Your task to perform on an android device: manage bookmarks in the chrome app Image 0: 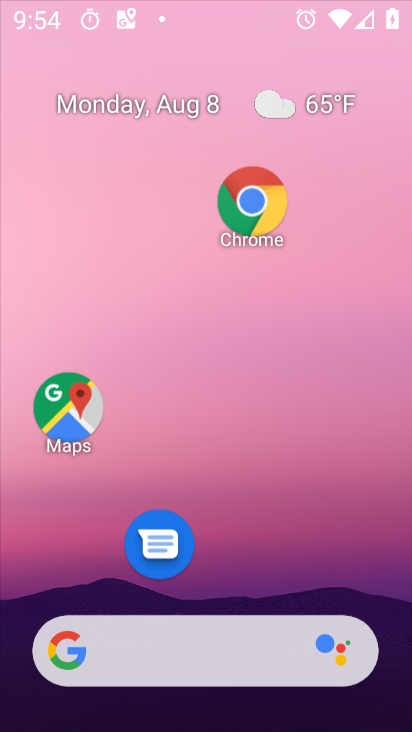
Step 0: press home button
Your task to perform on an android device: manage bookmarks in the chrome app Image 1: 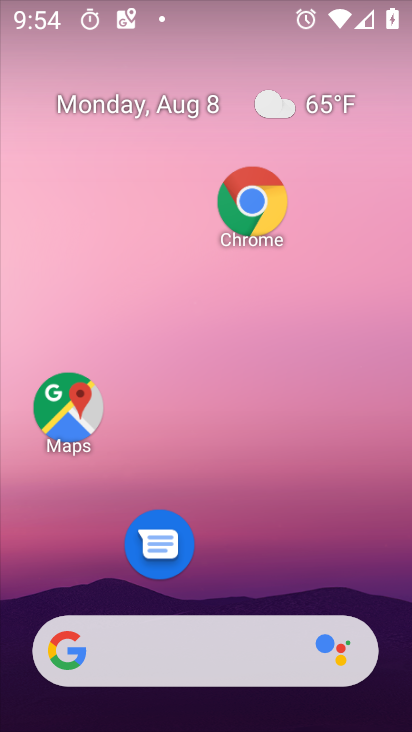
Step 1: click (245, 196)
Your task to perform on an android device: manage bookmarks in the chrome app Image 2: 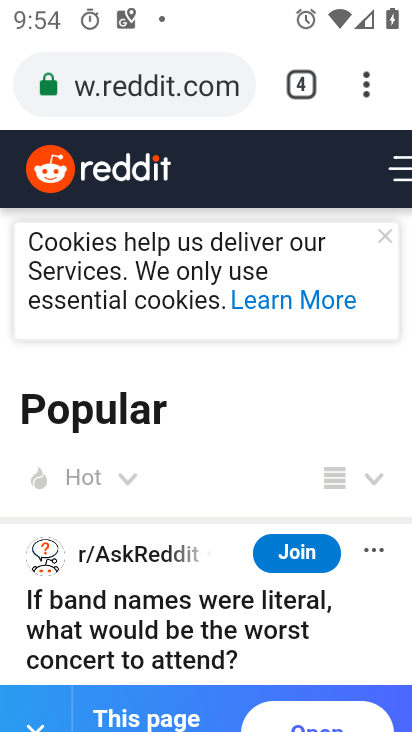
Step 2: click (366, 85)
Your task to perform on an android device: manage bookmarks in the chrome app Image 3: 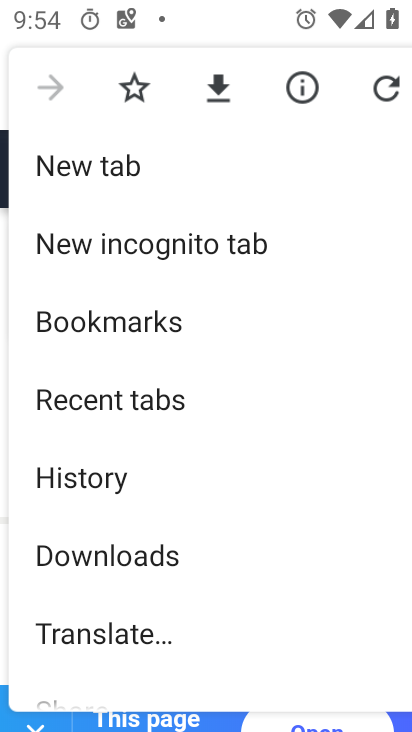
Step 3: click (199, 314)
Your task to perform on an android device: manage bookmarks in the chrome app Image 4: 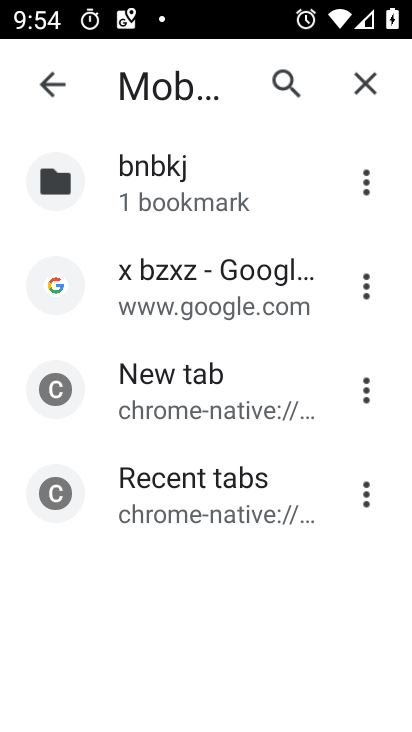
Step 4: click (361, 391)
Your task to perform on an android device: manage bookmarks in the chrome app Image 5: 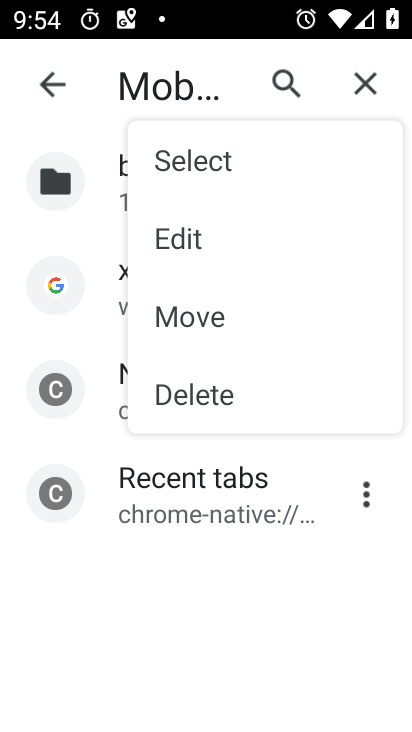
Step 5: click (233, 385)
Your task to perform on an android device: manage bookmarks in the chrome app Image 6: 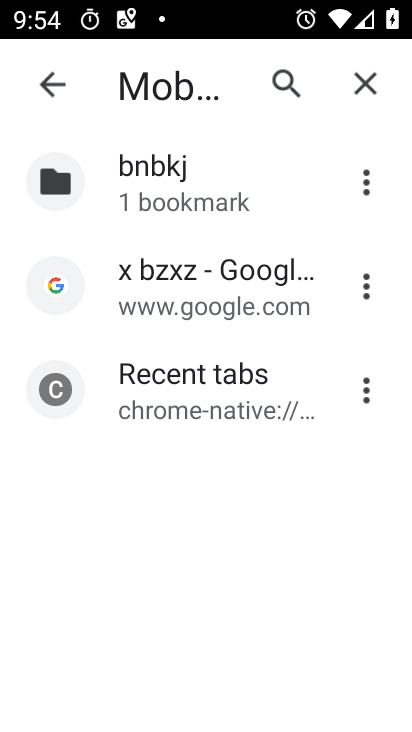
Step 6: task complete